Your task to perform on an android device: See recent photos Image 0: 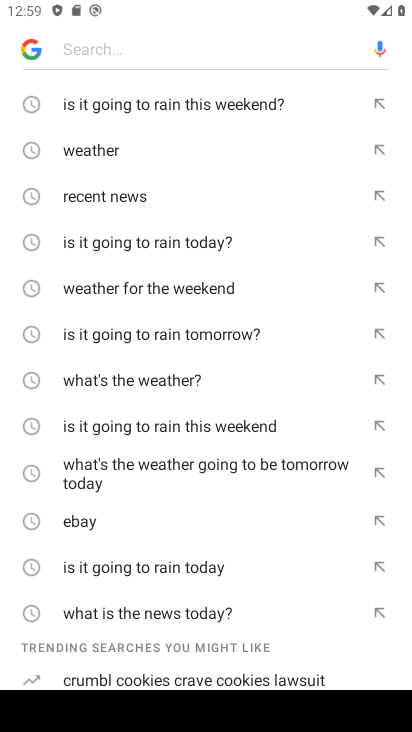
Step 0: press home button
Your task to perform on an android device: See recent photos Image 1: 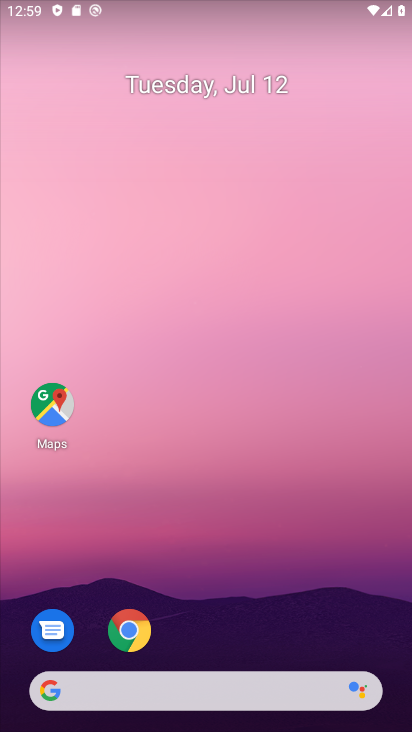
Step 1: drag from (365, 620) to (335, 63)
Your task to perform on an android device: See recent photos Image 2: 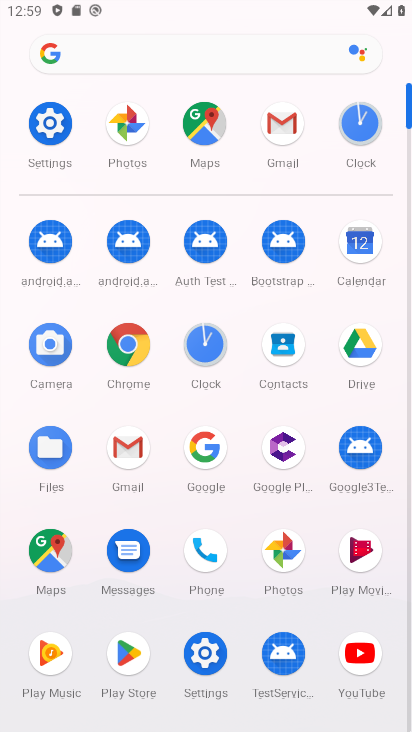
Step 2: click (283, 551)
Your task to perform on an android device: See recent photos Image 3: 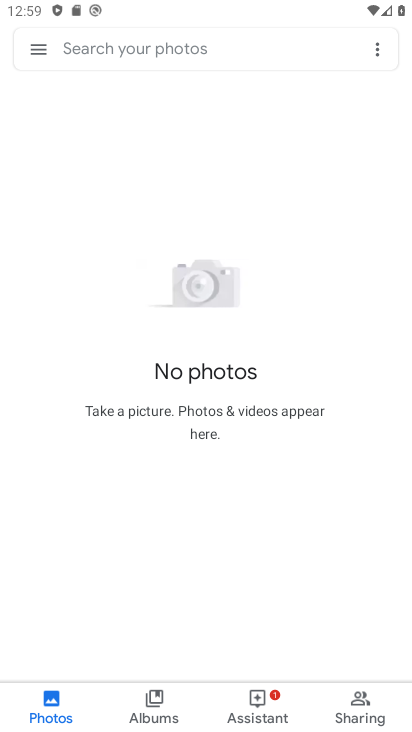
Step 3: task complete